Your task to perform on an android device: Go to network settings Image 0: 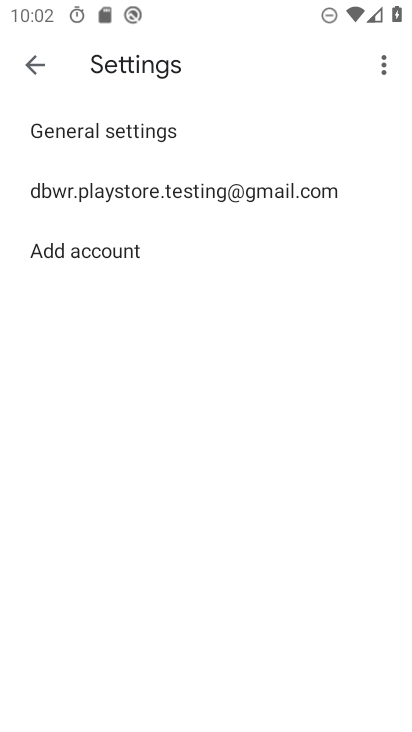
Step 0: press home button
Your task to perform on an android device: Go to network settings Image 1: 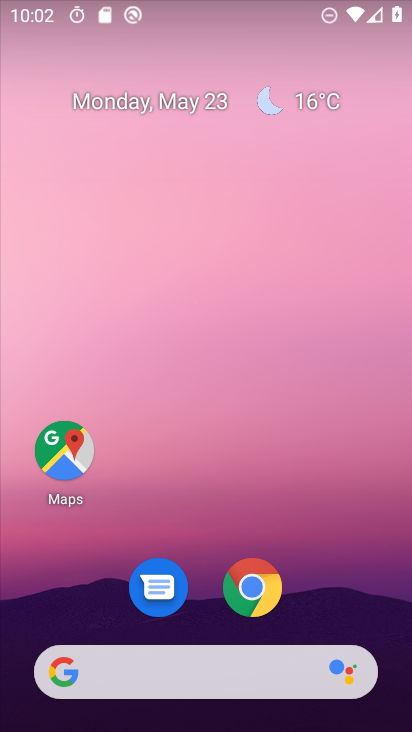
Step 1: drag from (235, 544) to (293, 39)
Your task to perform on an android device: Go to network settings Image 2: 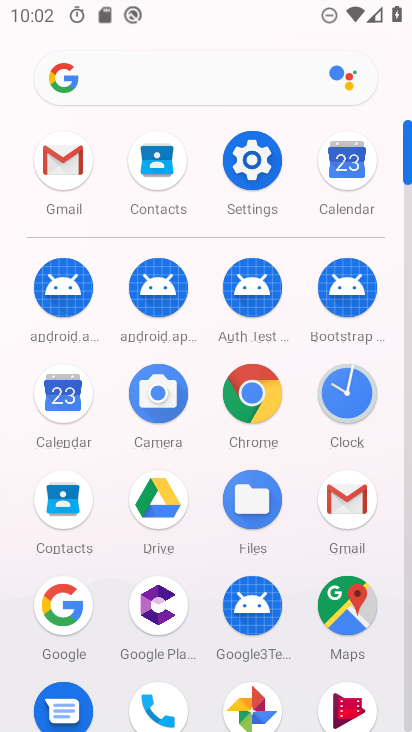
Step 2: click (257, 160)
Your task to perform on an android device: Go to network settings Image 3: 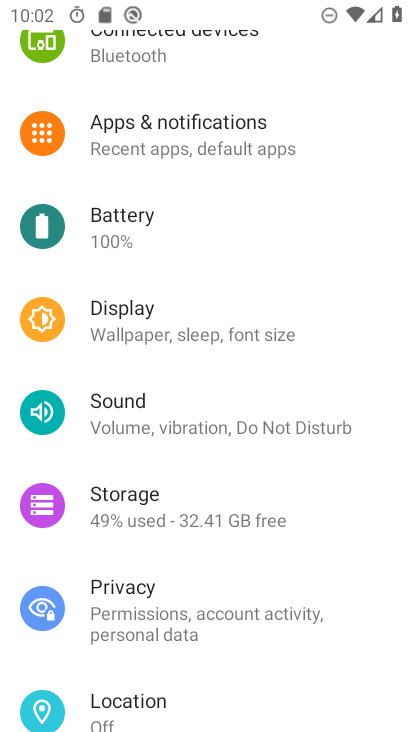
Step 3: drag from (263, 158) to (220, 588)
Your task to perform on an android device: Go to network settings Image 4: 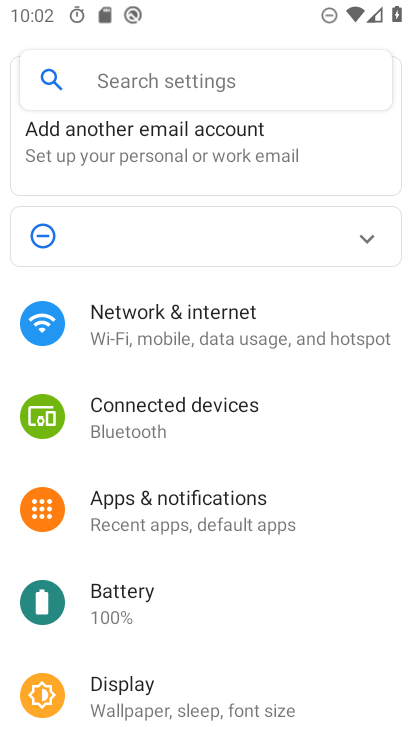
Step 4: click (145, 318)
Your task to perform on an android device: Go to network settings Image 5: 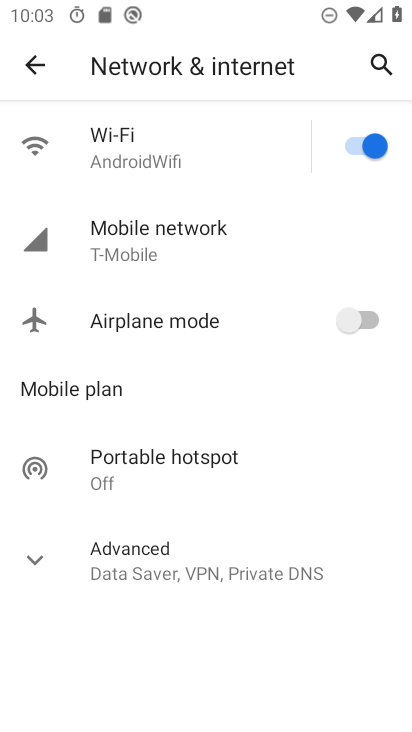
Step 5: task complete